Your task to perform on an android device: open wifi settings Image 0: 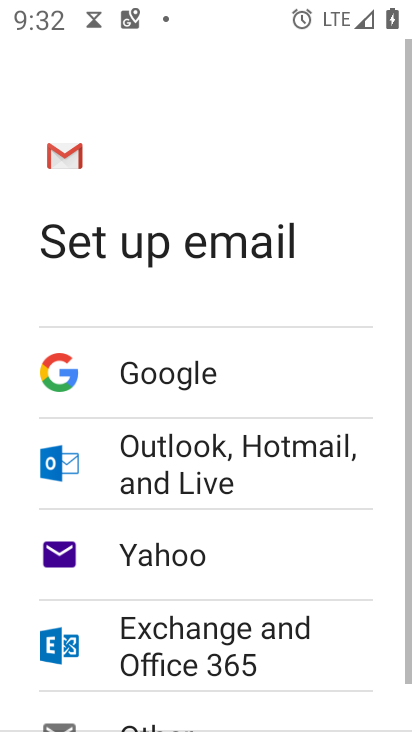
Step 0: press home button
Your task to perform on an android device: open wifi settings Image 1: 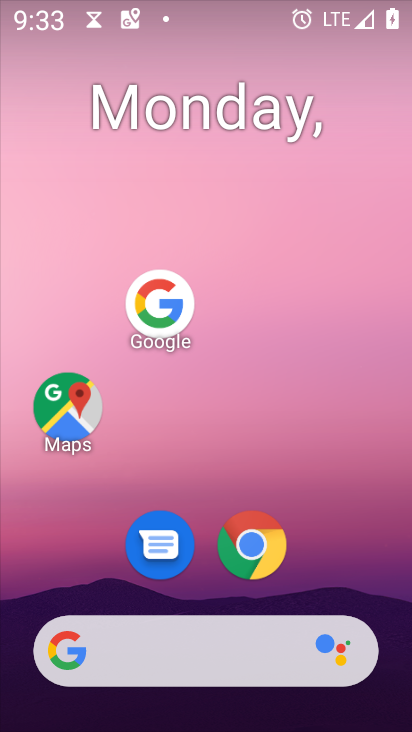
Step 1: drag from (175, 606) to (258, 98)
Your task to perform on an android device: open wifi settings Image 2: 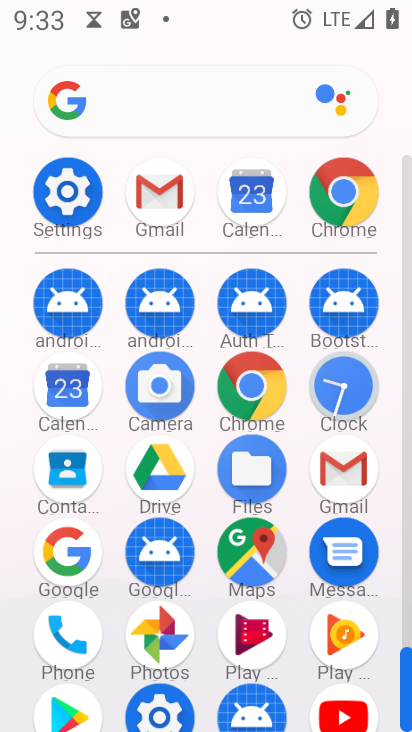
Step 2: click (71, 201)
Your task to perform on an android device: open wifi settings Image 3: 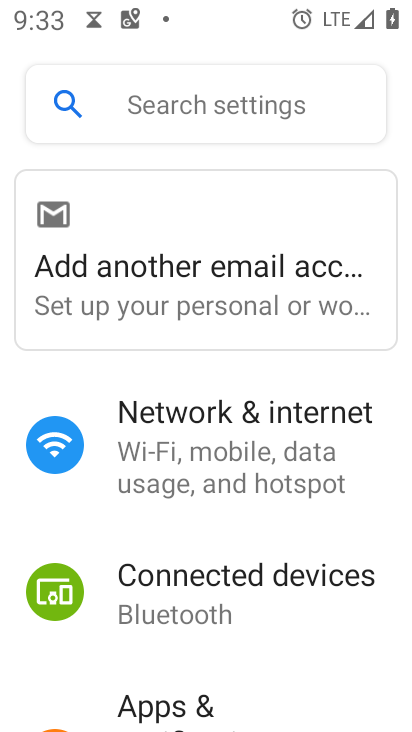
Step 3: click (211, 433)
Your task to perform on an android device: open wifi settings Image 4: 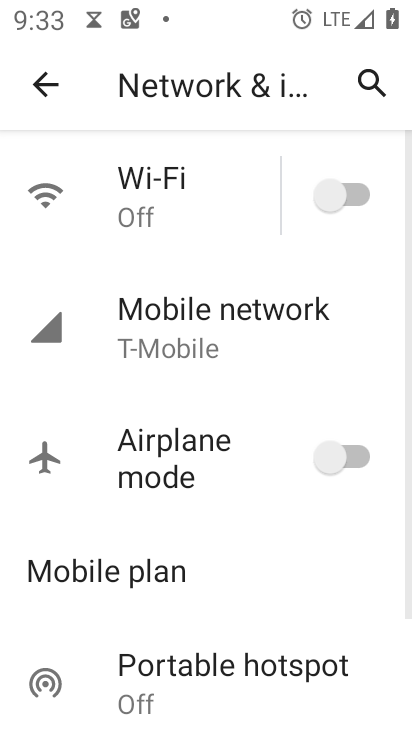
Step 4: click (135, 187)
Your task to perform on an android device: open wifi settings Image 5: 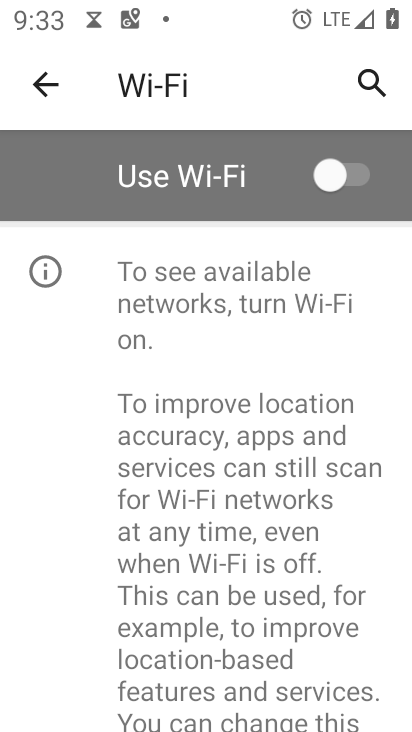
Step 5: task complete